Your task to perform on an android device: allow notifications from all sites in the chrome app Image 0: 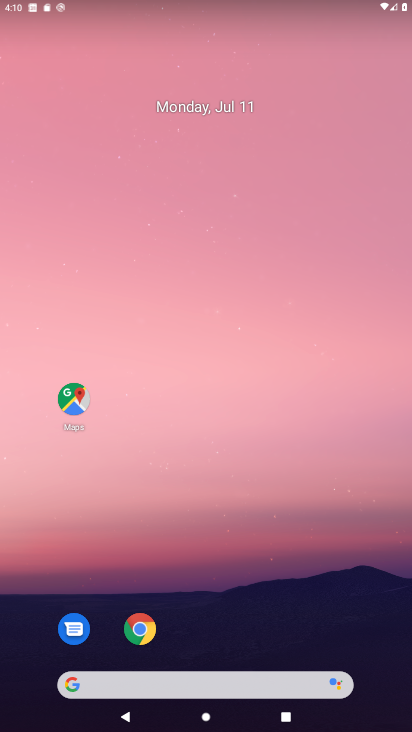
Step 0: press home button
Your task to perform on an android device: allow notifications from all sites in the chrome app Image 1: 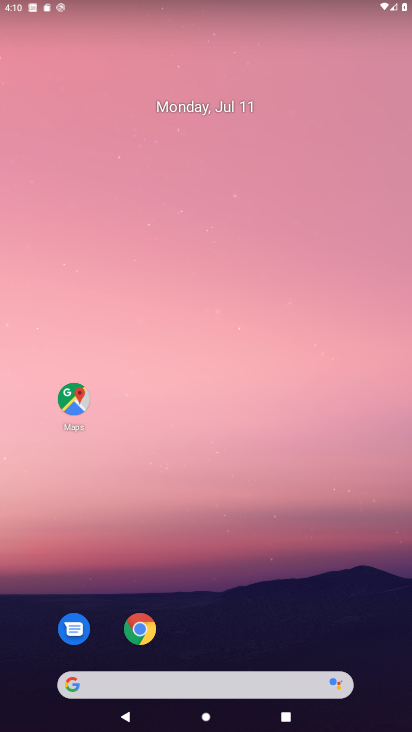
Step 1: drag from (383, 686) to (356, 153)
Your task to perform on an android device: allow notifications from all sites in the chrome app Image 2: 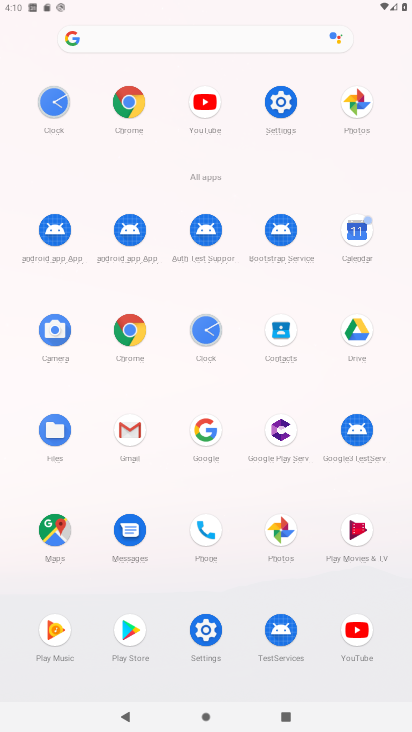
Step 2: click (138, 97)
Your task to perform on an android device: allow notifications from all sites in the chrome app Image 3: 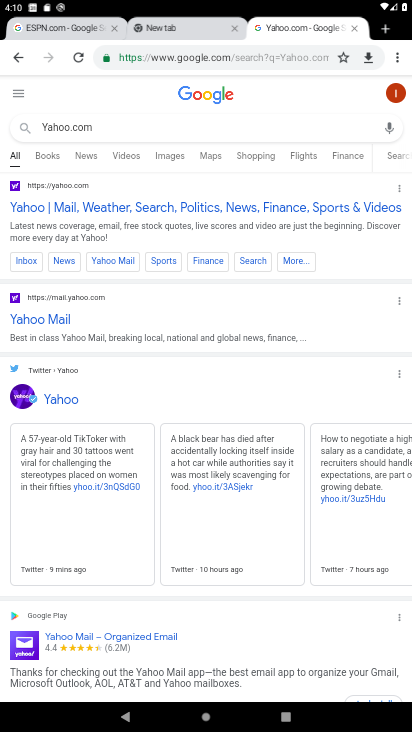
Step 3: click (397, 60)
Your task to perform on an android device: allow notifications from all sites in the chrome app Image 4: 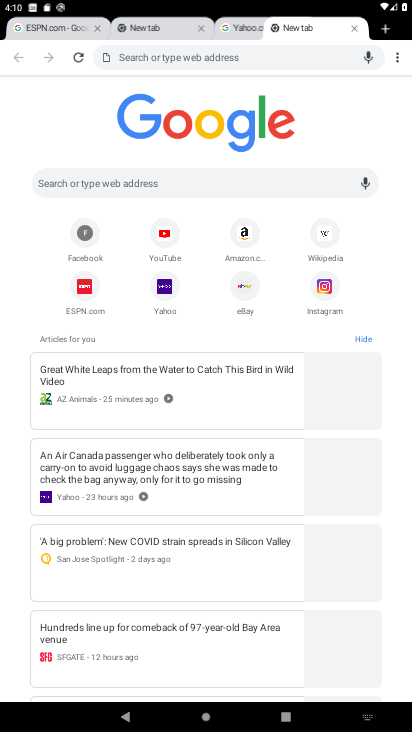
Step 4: click (397, 60)
Your task to perform on an android device: allow notifications from all sites in the chrome app Image 5: 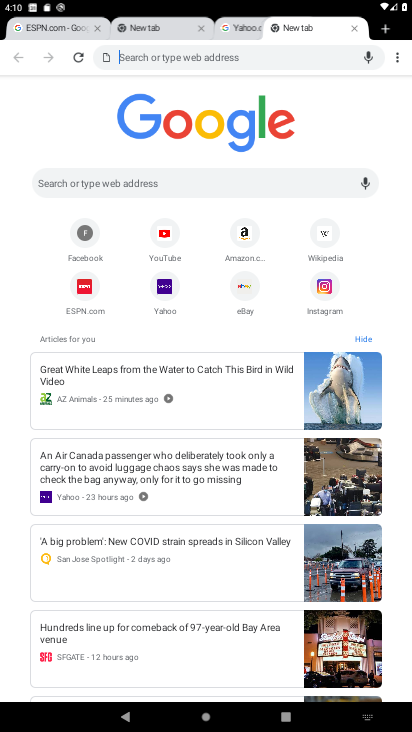
Step 5: click (397, 60)
Your task to perform on an android device: allow notifications from all sites in the chrome app Image 6: 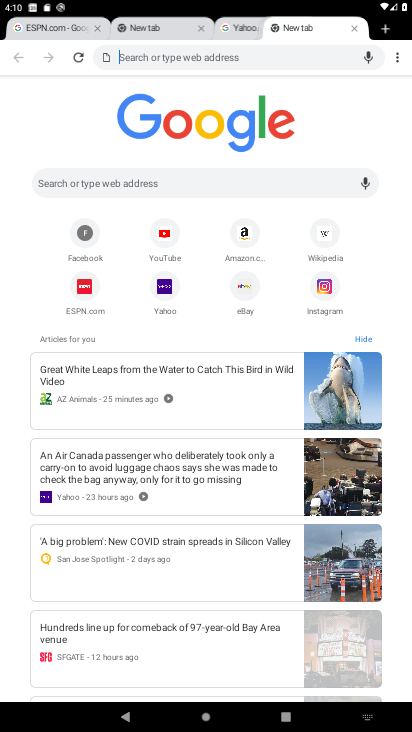
Step 6: click (397, 60)
Your task to perform on an android device: allow notifications from all sites in the chrome app Image 7: 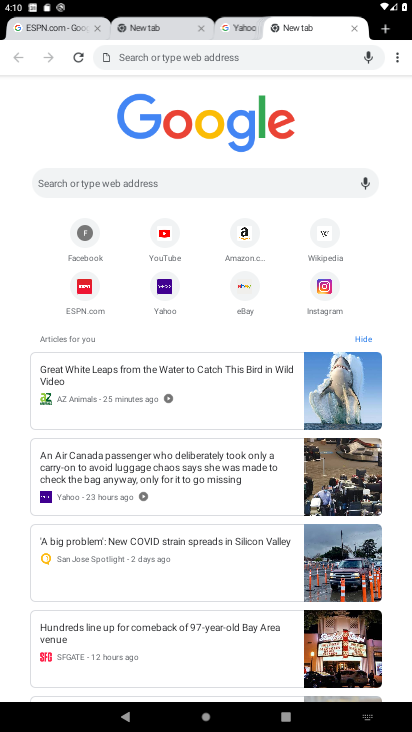
Step 7: click (397, 60)
Your task to perform on an android device: allow notifications from all sites in the chrome app Image 8: 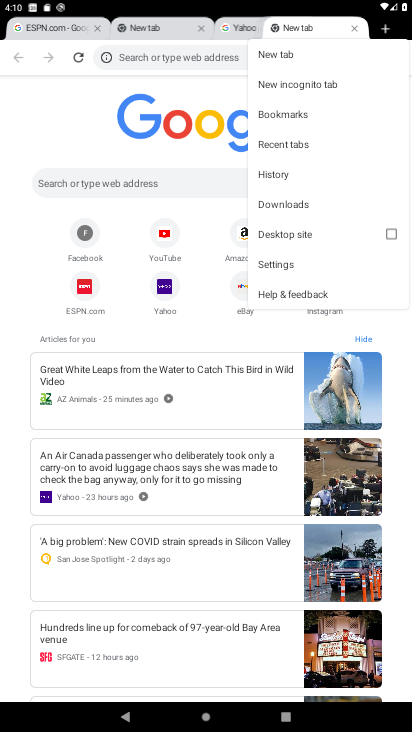
Step 8: click (288, 263)
Your task to perform on an android device: allow notifications from all sites in the chrome app Image 9: 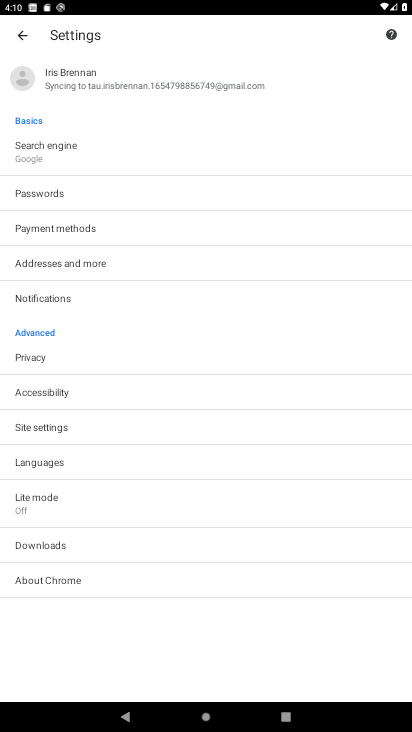
Step 9: click (67, 426)
Your task to perform on an android device: allow notifications from all sites in the chrome app Image 10: 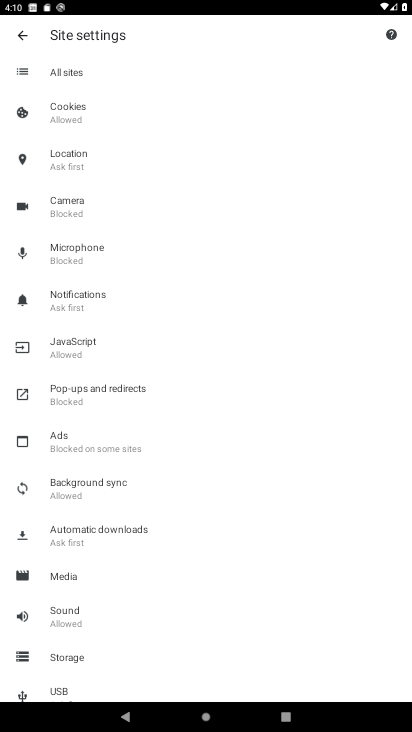
Step 10: click (64, 302)
Your task to perform on an android device: allow notifications from all sites in the chrome app Image 11: 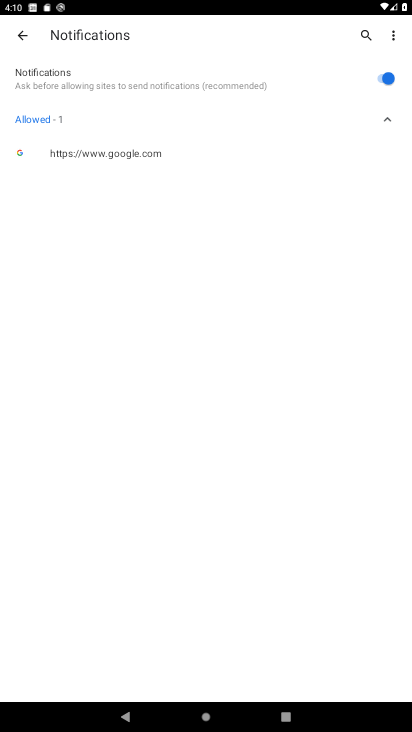
Step 11: task complete